Your task to perform on an android device: empty trash in google photos Image 0: 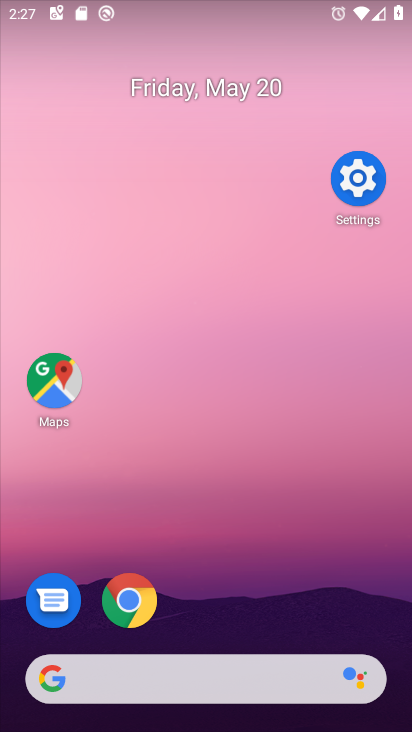
Step 0: drag from (235, 619) to (283, 22)
Your task to perform on an android device: empty trash in google photos Image 1: 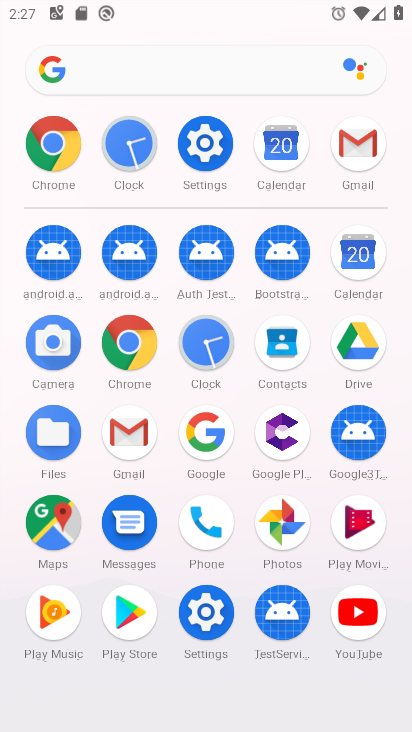
Step 1: click (277, 531)
Your task to perform on an android device: empty trash in google photos Image 2: 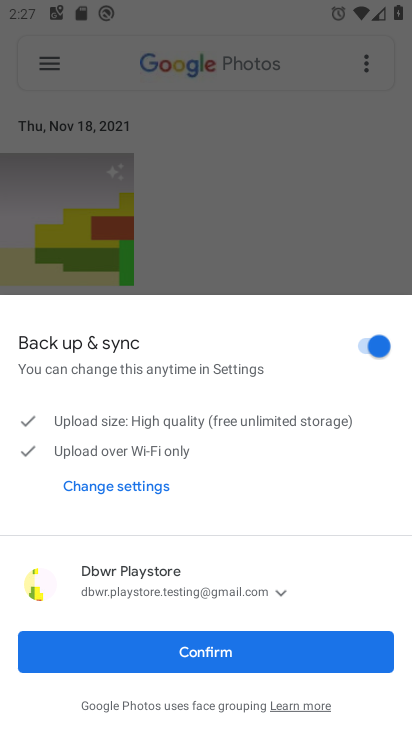
Step 2: click (235, 639)
Your task to perform on an android device: empty trash in google photos Image 3: 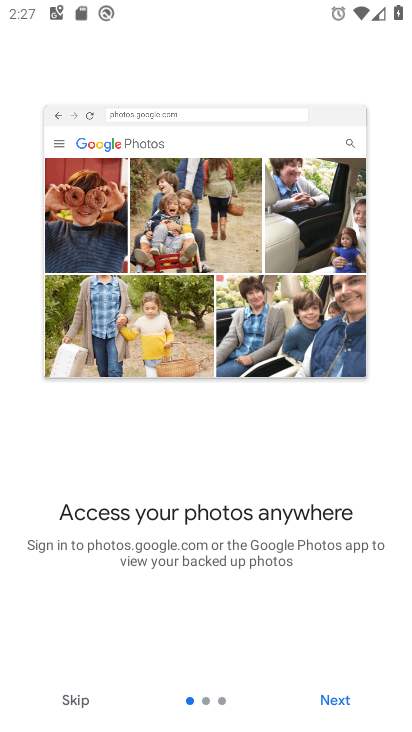
Step 3: click (78, 695)
Your task to perform on an android device: empty trash in google photos Image 4: 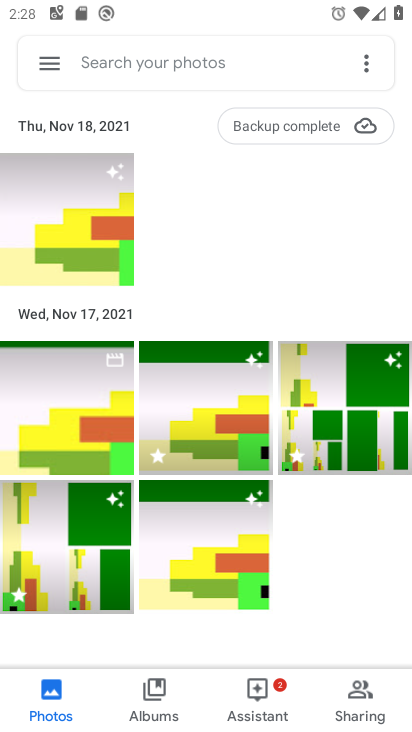
Step 4: click (53, 51)
Your task to perform on an android device: empty trash in google photos Image 5: 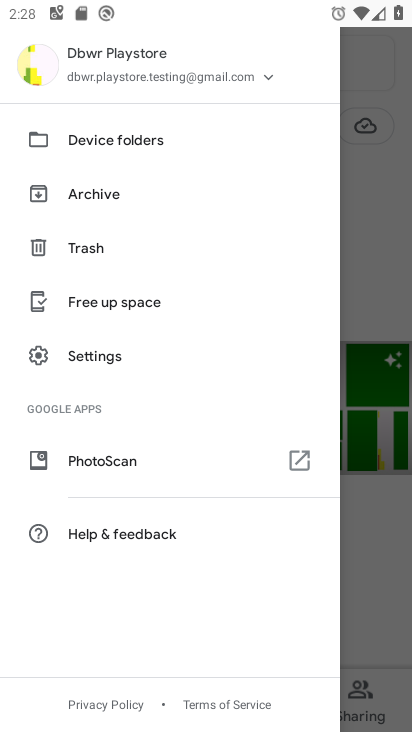
Step 5: click (98, 250)
Your task to perform on an android device: empty trash in google photos Image 6: 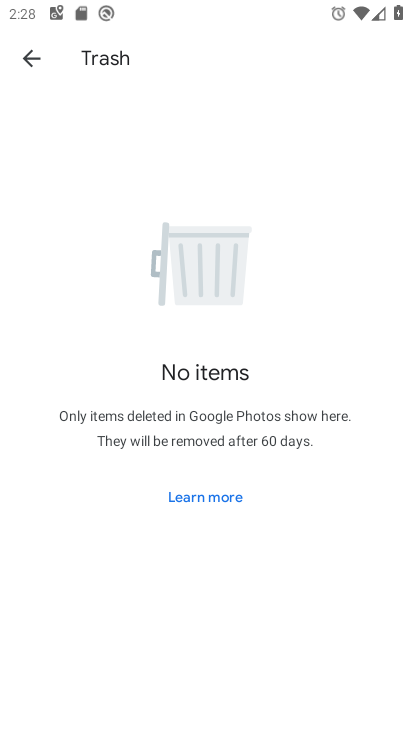
Step 6: task complete